Your task to perform on an android device: snooze an email in the gmail app Image 0: 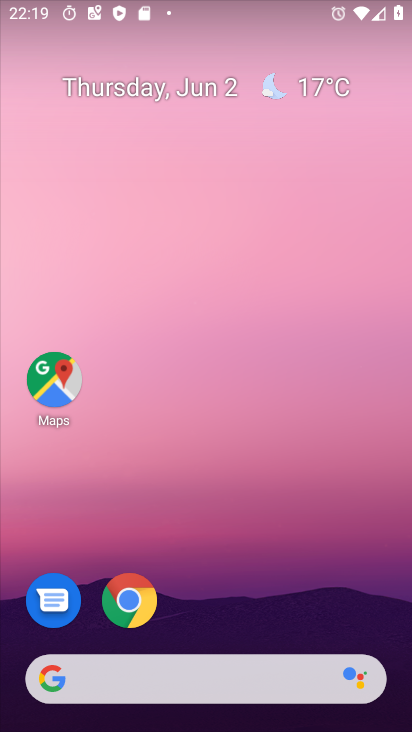
Step 0: drag from (343, 597) to (325, 171)
Your task to perform on an android device: snooze an email in the gmail app Image 1: 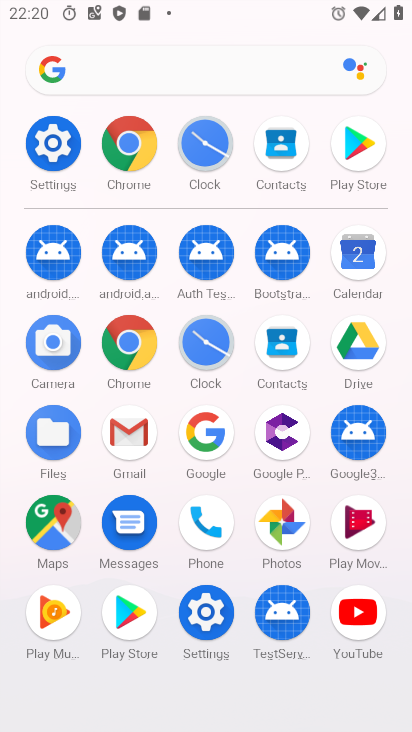
Step 1: click (136, 439)
Your task to perform on an android device: snooze an email in the gmail app Image 2: 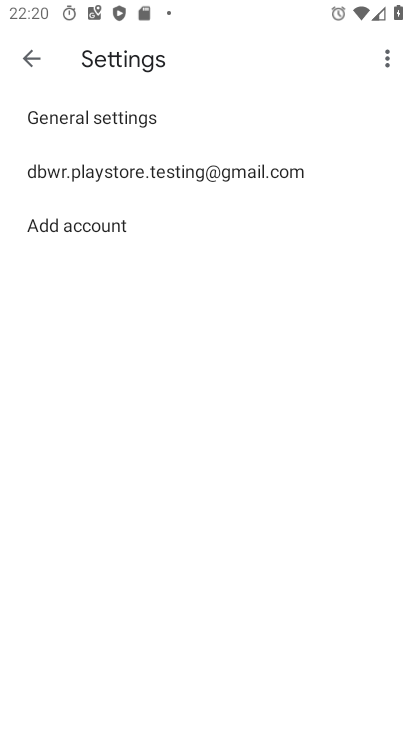
Step 2: press back button
Your task to perform on an android device: snooze an email in the gmail app Image 3: 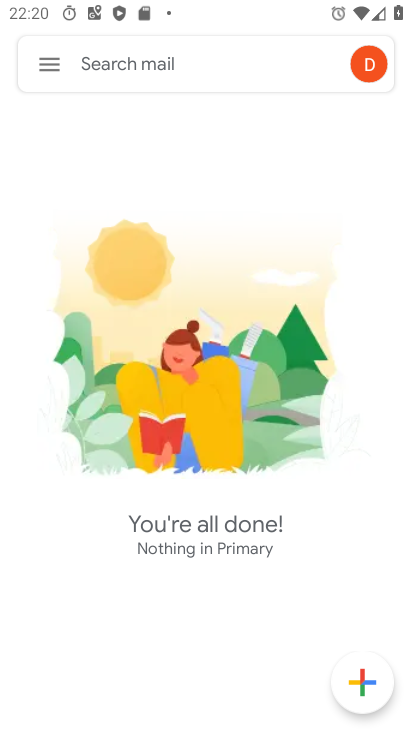
Step 3: click (49, 69)
Your task to perform on an android device: snooze an email in the gmail app Image 4: 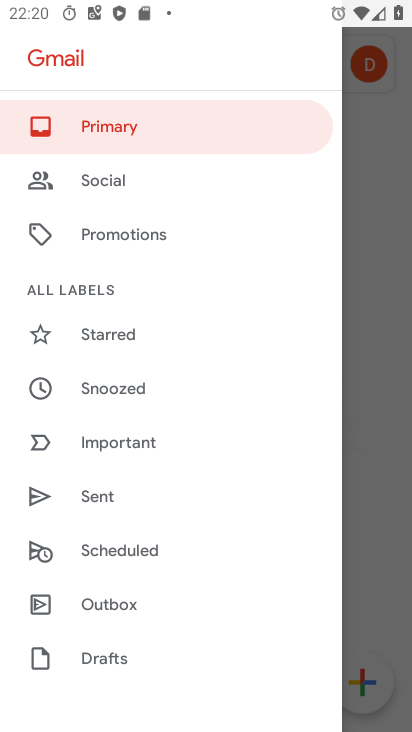
Step 4: drag from (254, 392) to (257, 154)
Your task to perform on an android device: snooze an email in the gmail app Image 5: 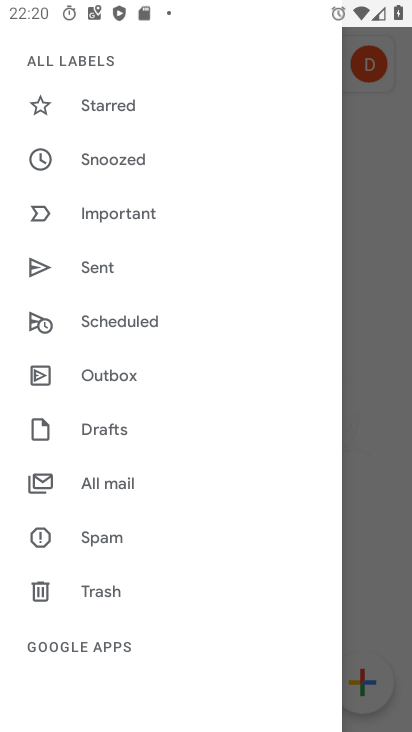
Step 5: click (149, 164)
Your task to perform on an android device: snooze an email in the gmail app Image 6: 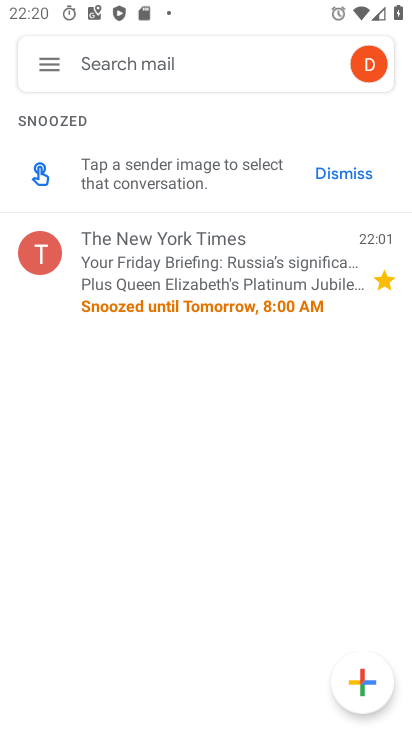
Step 6: task complete